Your task to perform on an android device: empty trash in google photos Image 0: 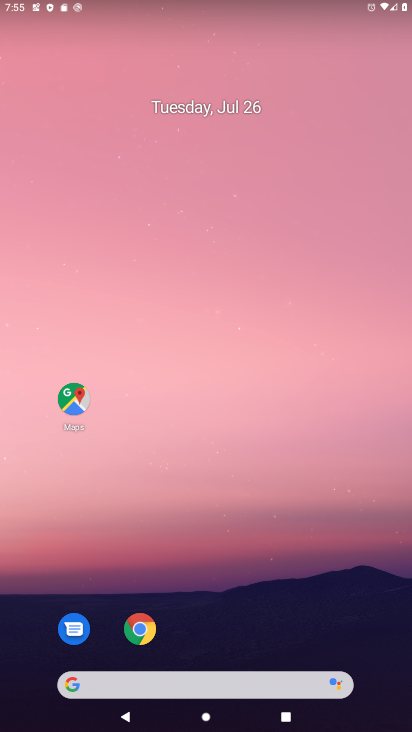
Step 0: drag from (282, 578) to (205, 9)
Your task to perform on an android device: empty trash in google photos Image 1: 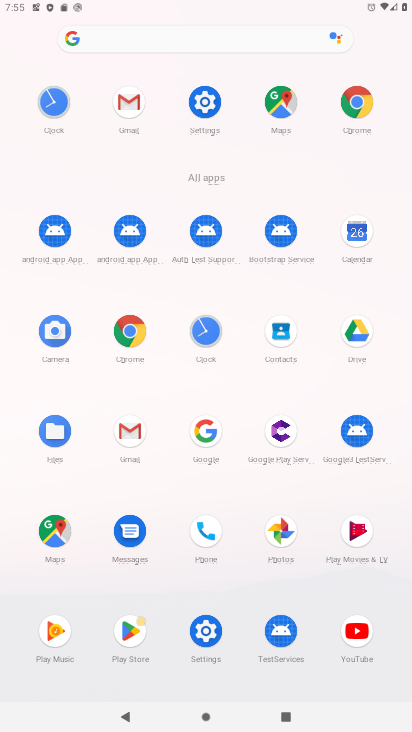
Step 1: click (278, 525)
Your task to perform on an android device: empty trash in google photos Image 2: 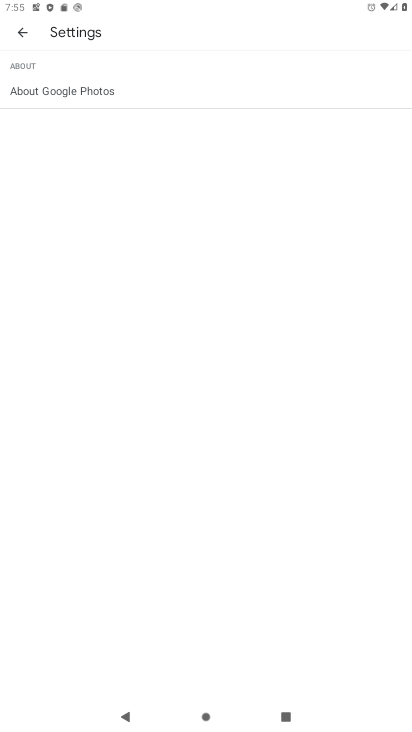
Step 2: click (25, 35)
Your task to perform on an android device: empty trash in google photos Image 3: 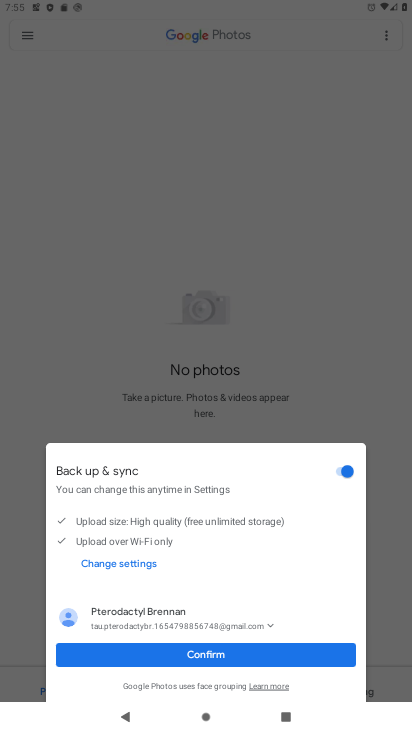
Step 3: click (222, 662)
Your task to perform on an android device: empty trash in google photos Image 4: 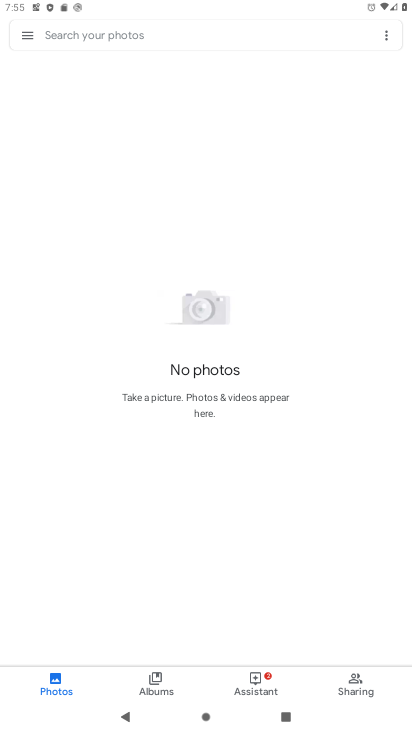
Step 4: click (27, 33)
Your task to perform on an android device: empty trash in google photos Image 5: 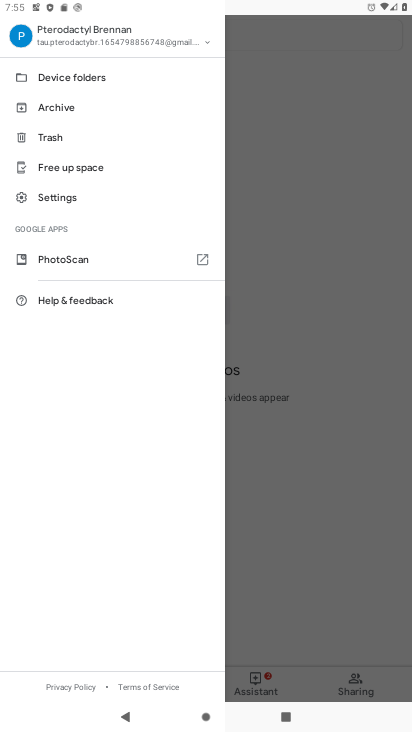
Step 5: click (52, 139)
Your task to perform on an android device: empty trash in google photos Image 6: 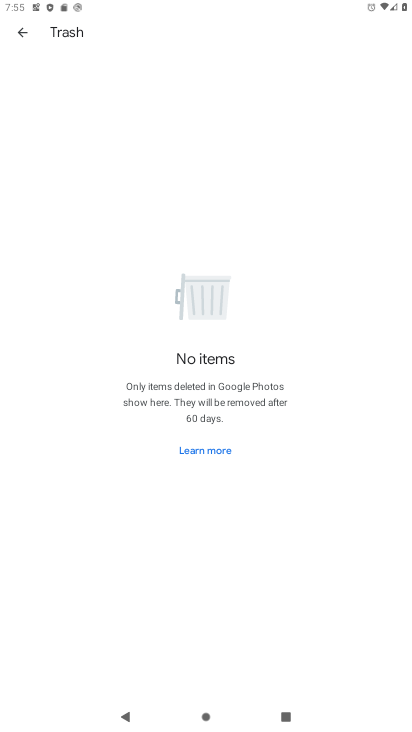
Step 6: task complete